Your task to perform on an android device: Open privacy settings Image 0: 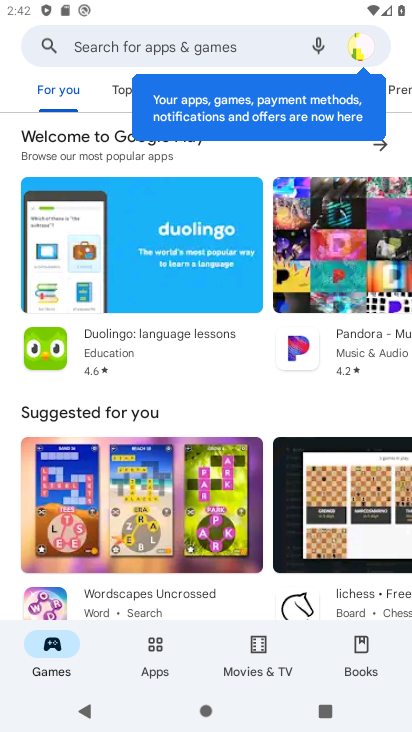
Step 0: press home button
Your task to perform on an android device: Open privacy settings Image 1: 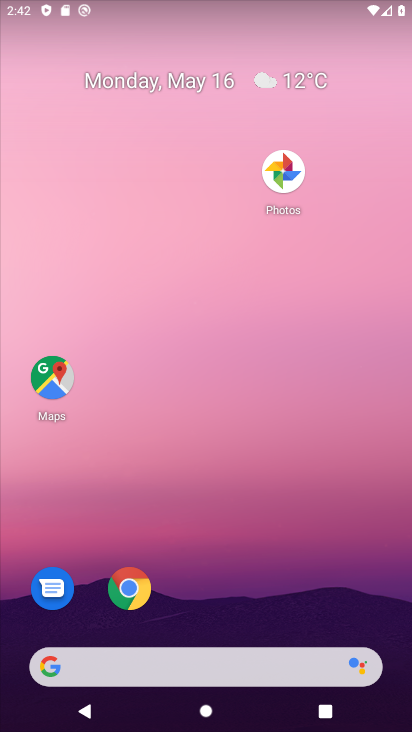
Step 1: drag from (186, 543) to (297, 23)
Your task to perform on an android device: Open privacy settings Image 2: 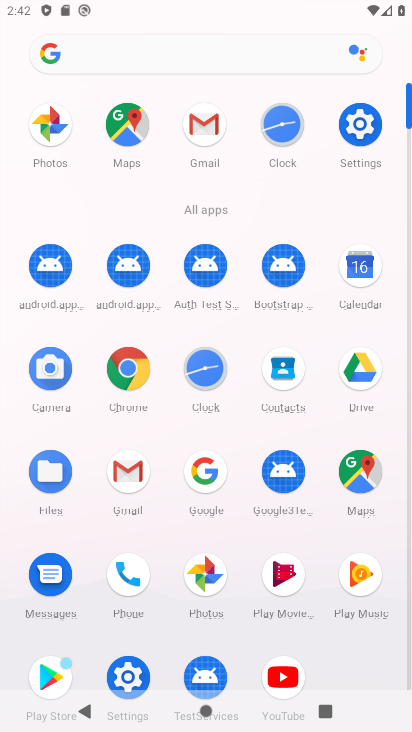
Step 2: click (362, 137)
Your task to perform on an android device: Open privacy settings Image 3: 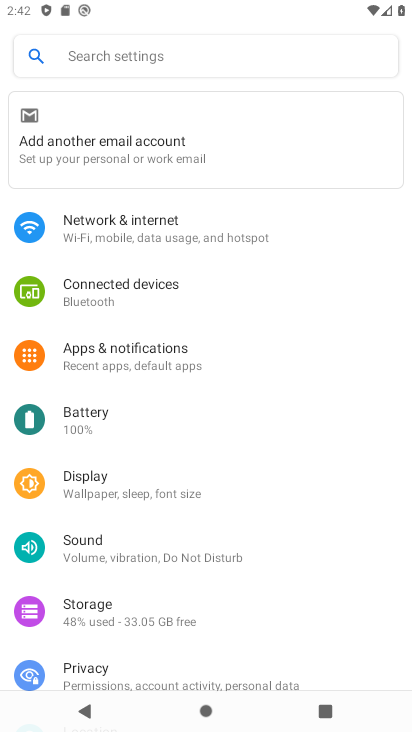
Step 3: click (73, 682)
Your task to perform on an android device: Open privacy settings Image 4: 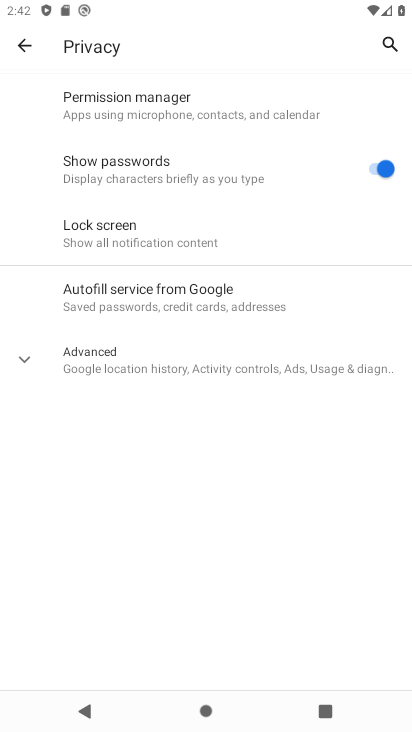
Step 4: task complete